Your task to perform on an android device: set an alarm Image 0: 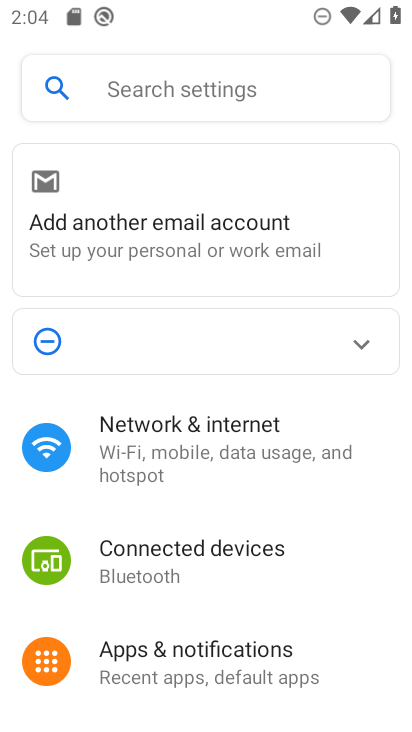
Step 0: press home button
Your task to perform on an android device: set an alarm Image 1: 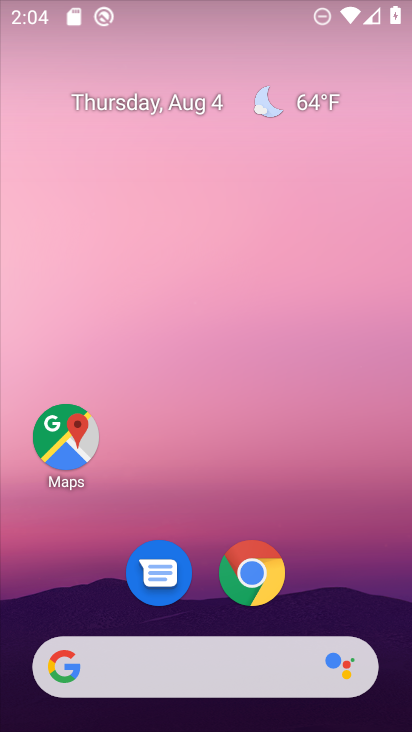
Step 1: drag from (355, 445) to (355, 97)
Your task to perform on an android device: set an alarm Image 2: 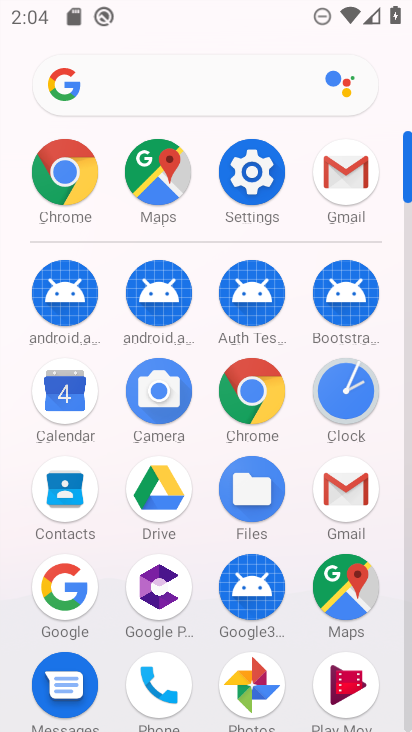
Step 2: click (362, 395)
Your task to perform on an android device: set an alarm Image 3: 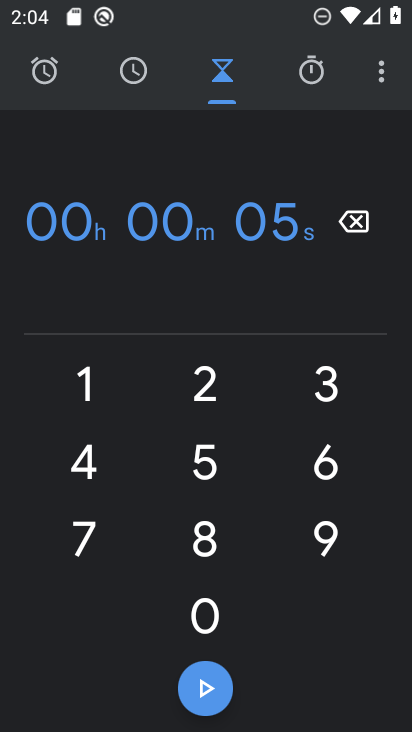
Step 3: click (48, 88)
Your task to perform on an android device: set an alarm Image 4: 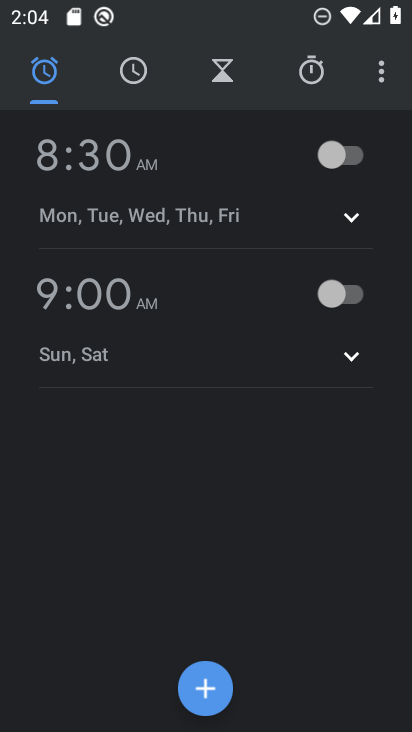
Step 4: click (204, 680)
Your task to perform on an android device: set an alarm Image 5: 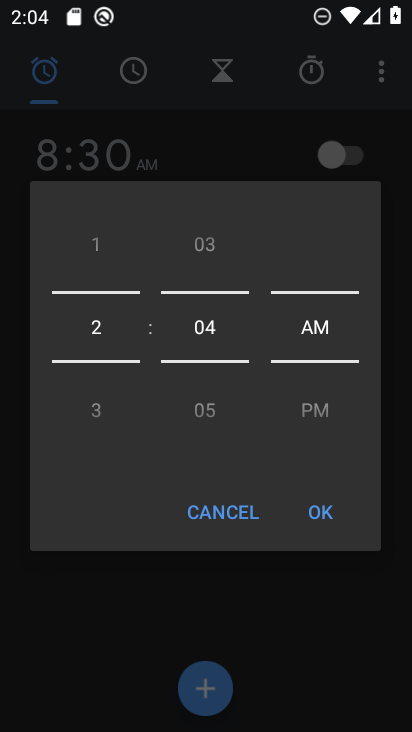
Step 5: click (310, 525)
Your task to perform on an android device: set an alarm Image 6: 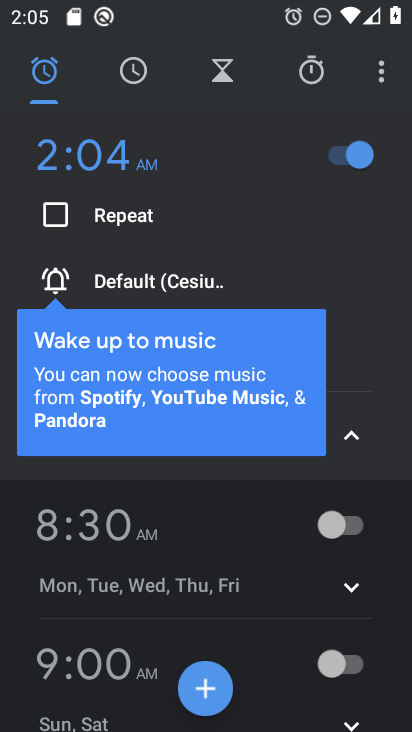
Step 6: task complete